Your task to perform on an android device: Go to settings Image 0: 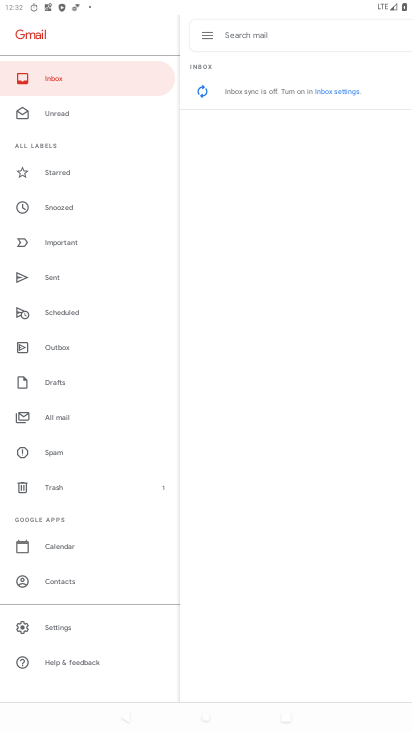
Step 0: press home button
Your task to perform on an android device: Go to settings Image 1: 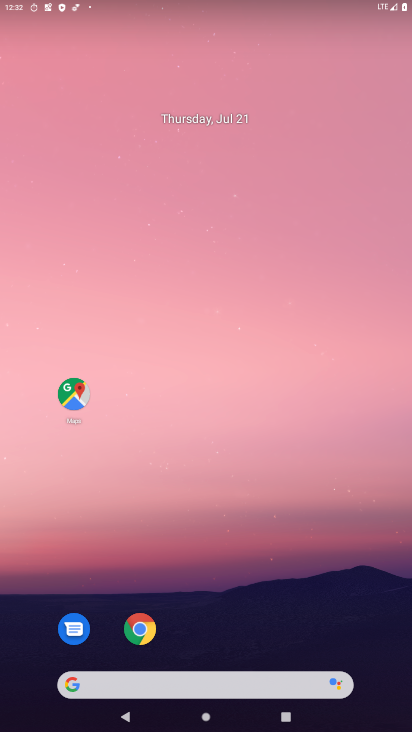
Step 1: drag from (237, 673) to (303, 6)
Your task to perform on an android device: Go to settings Image 2: 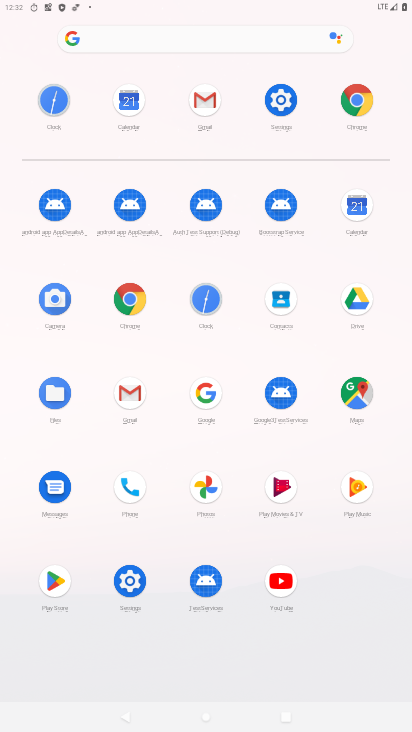
Step 2: click (131, 576)
Your task to perform on an android device: Go to settings Image 3: 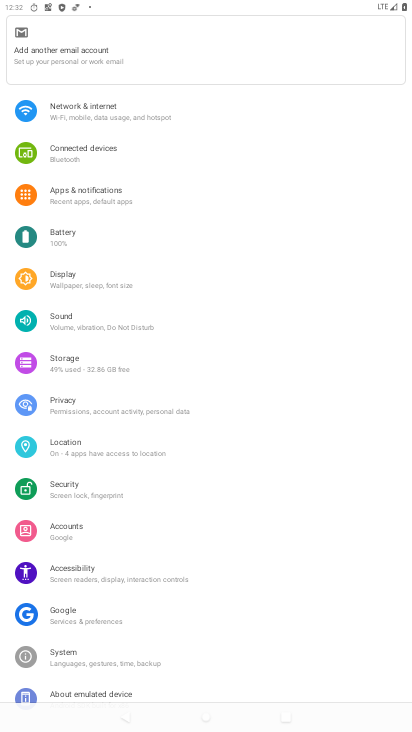
Step 3: task complete